Your task to perform on an android device: turn on priority inbox in the gmail app Image 0: 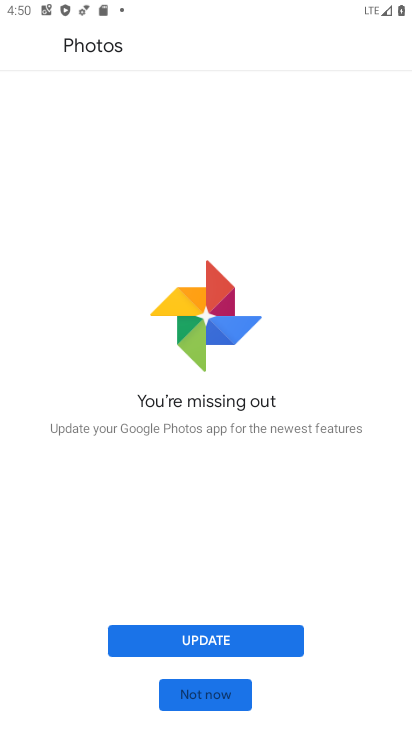
Step 0: press home button
Your task to perform on an android device: turn on priority inbox in the gmail app Image 1: 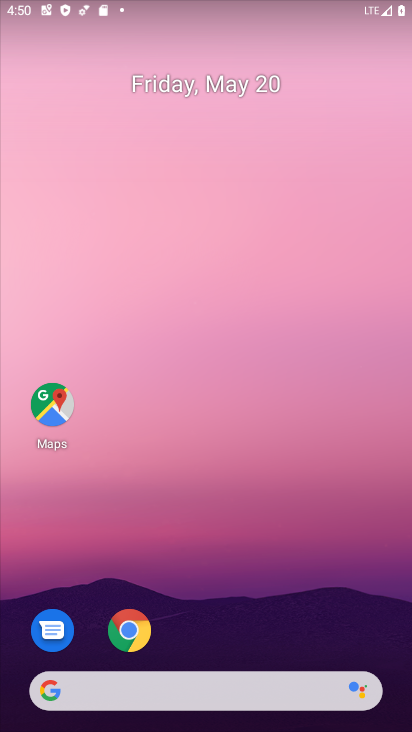
Step 1: drag from (192, 556) to (182, 25)
Your task to perform on an android device: turn on priority inbox in the gmail app Image 2: 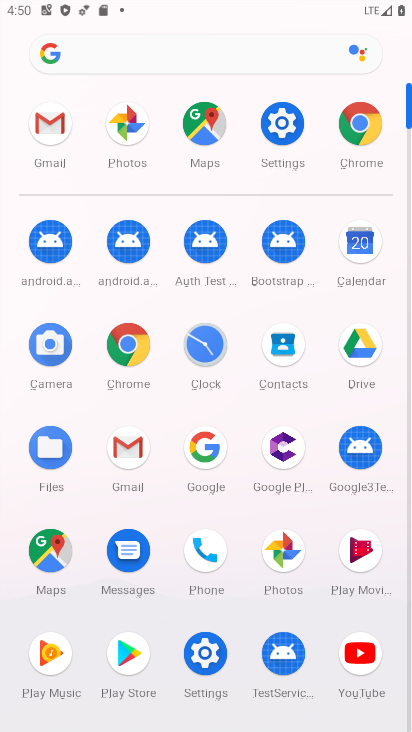
Step 2: click (51, 125)
Your task to perform on an android device: turn on priority inbox in the gmail app Image 3: 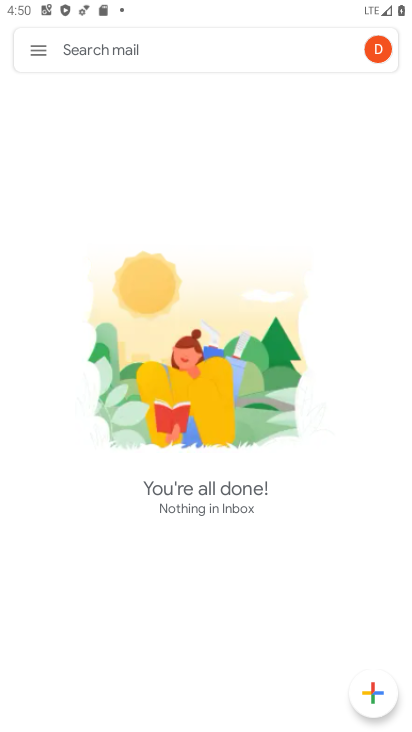
Step 3: click (31, 38)
Your task to perform on an android device: turn on priority inbox in the gmail app Image 4: 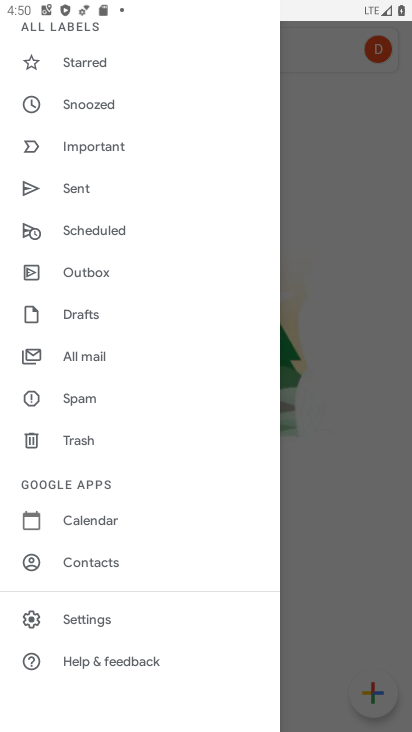
Step 4: click (61, 619)
Your task to perform on an android device: turn on priority inbox in the gmail app Image 5: 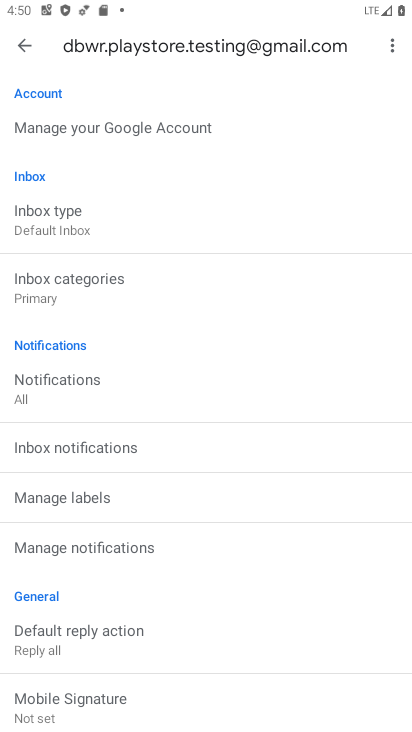
Step 5: click (70, 218)
Your task to perform on an android device: turn on priority inbox in the gmail app Image 6: 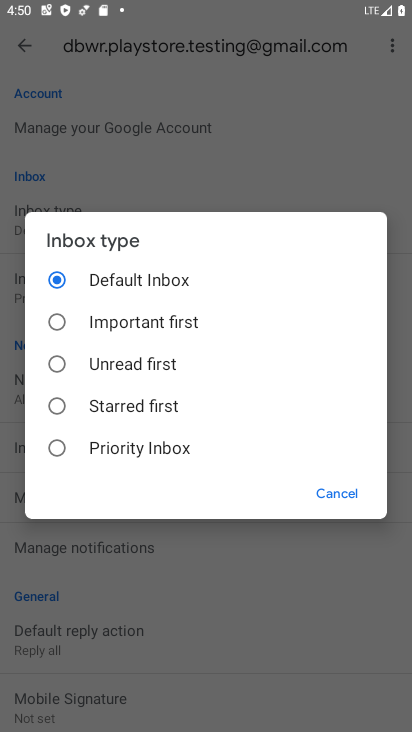
Step 6: click (53, 437)
Your task to perform on an android device: turn on priority inbox in the gmail app Image 7: 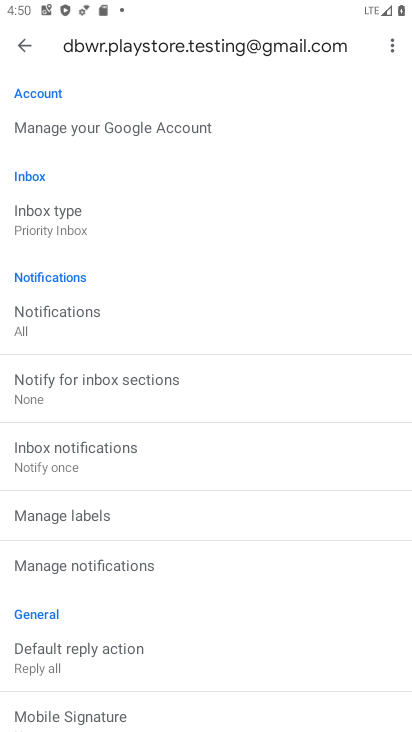
Step 7: task complete